Your task to perform on an android device: open app "LinkedIn" Image 0: 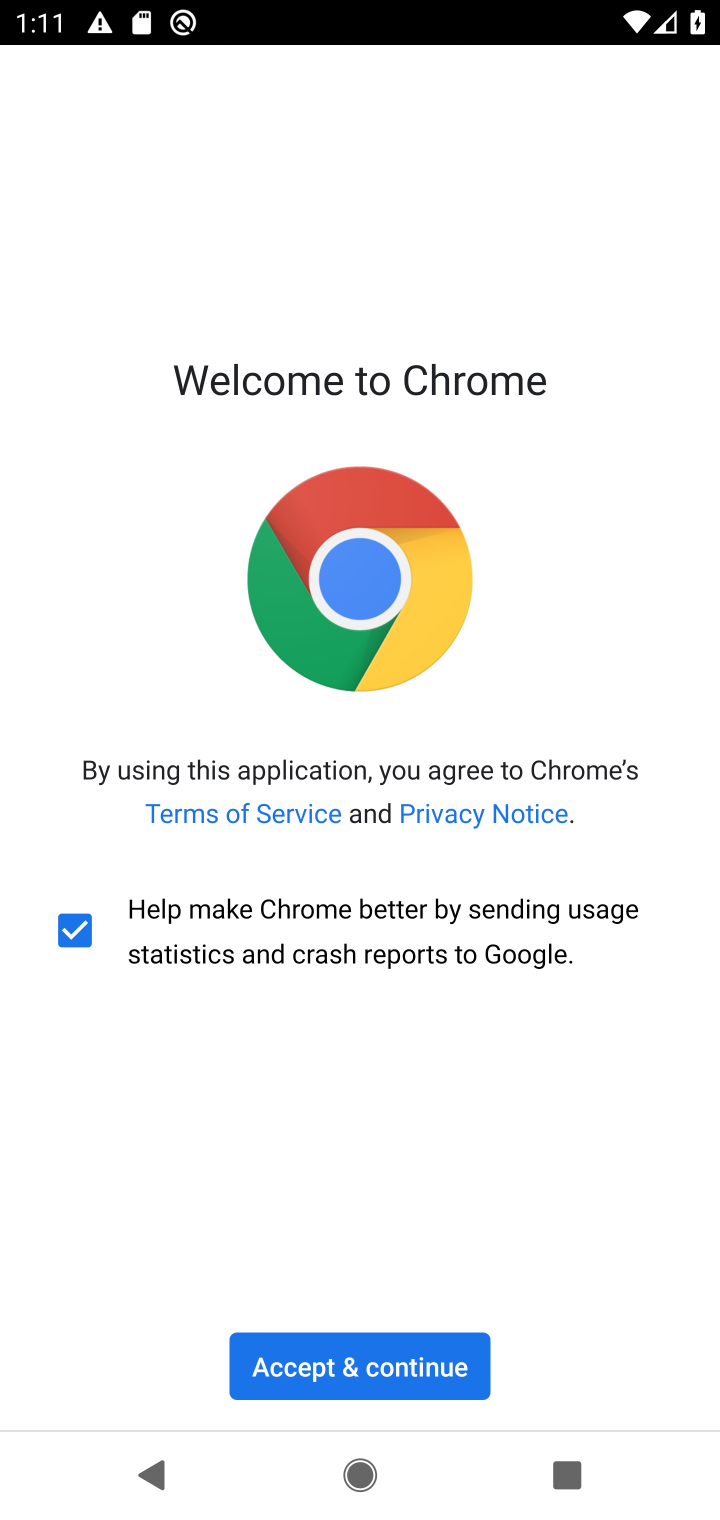
Step 0: press home button
Your task to perform on an android device: open app "LinkedIn" Image 1: 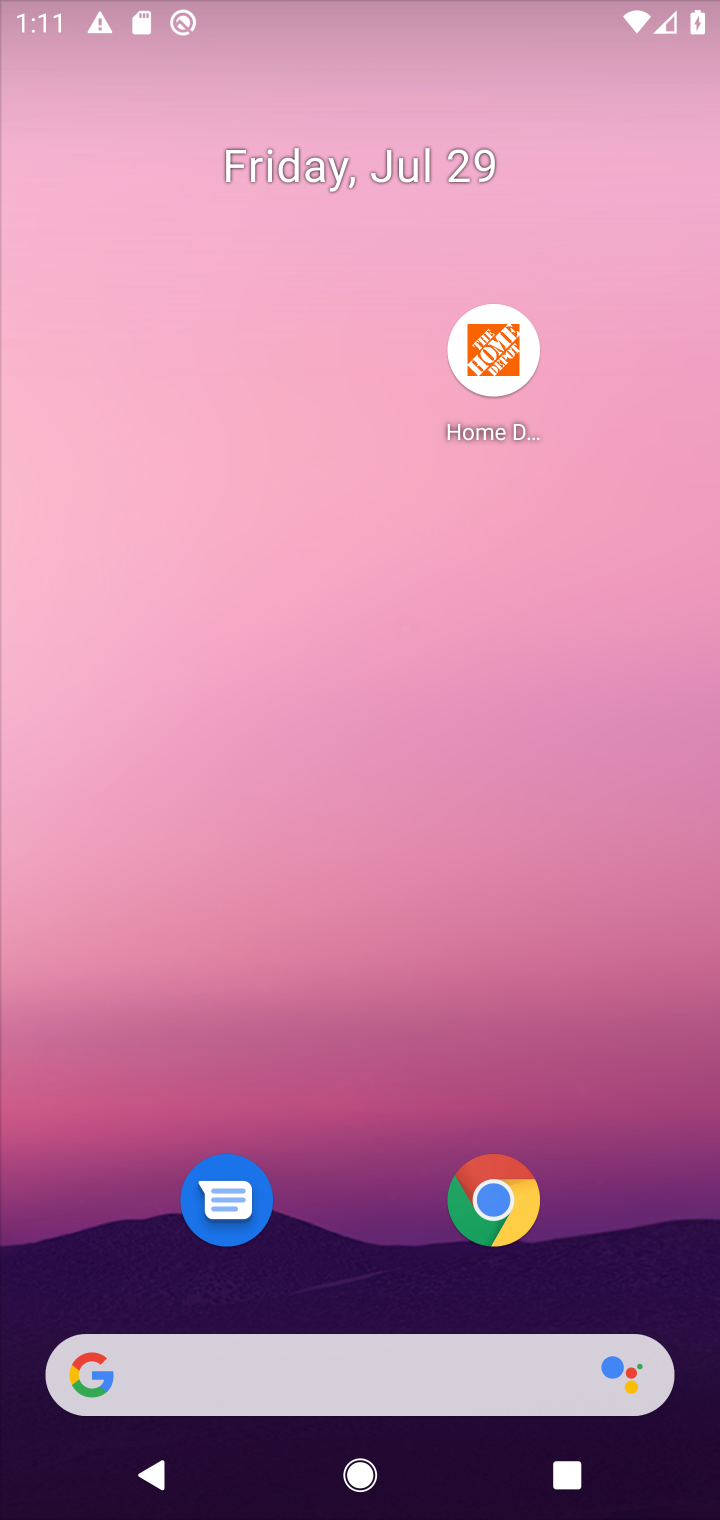
Step 1: drag from (557, 1175) to (583, 334)
Your task to perform on an android device: open app "LinkedIn" Image 2: 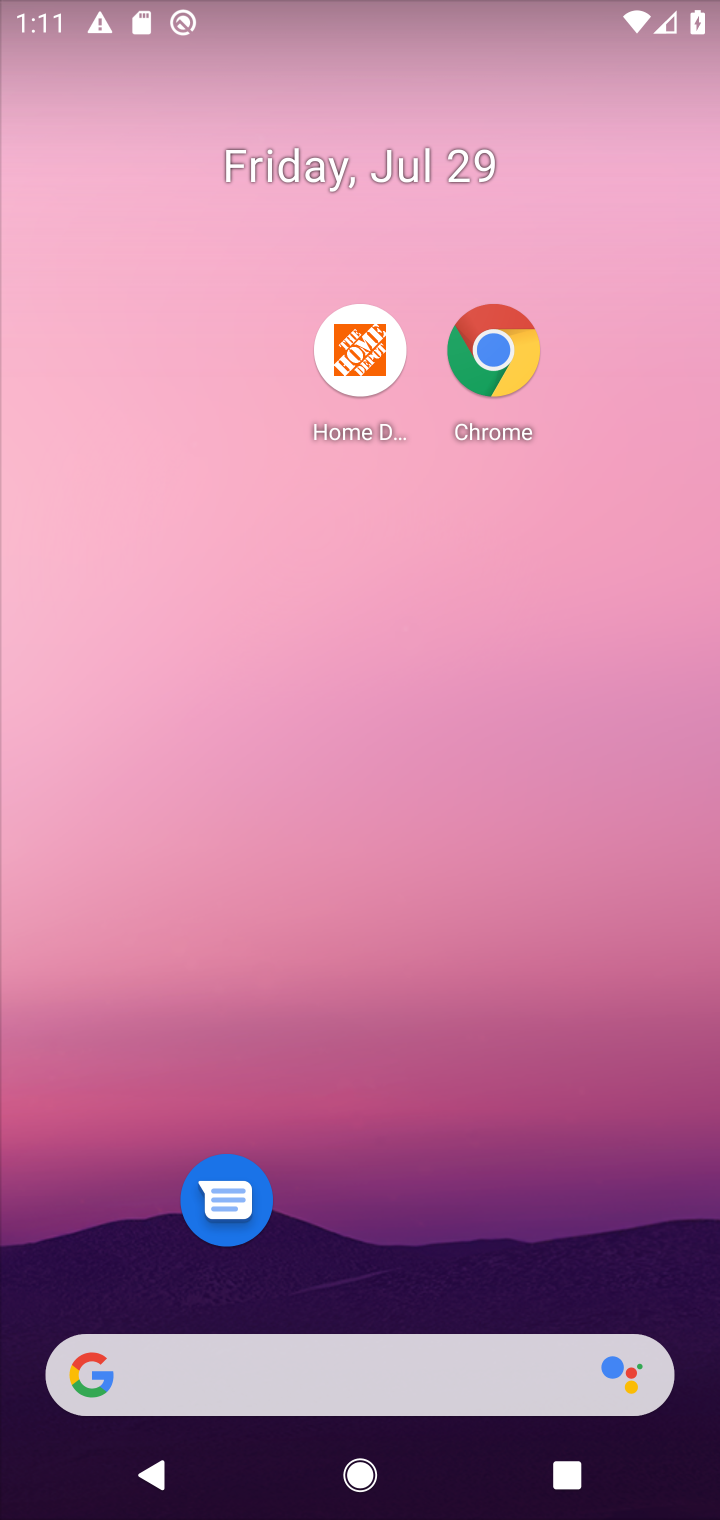
Step 2: drag from (518, 1109) to (597, 59)
Your task to perform on an android device: open app "LinkedIn" Image 3: 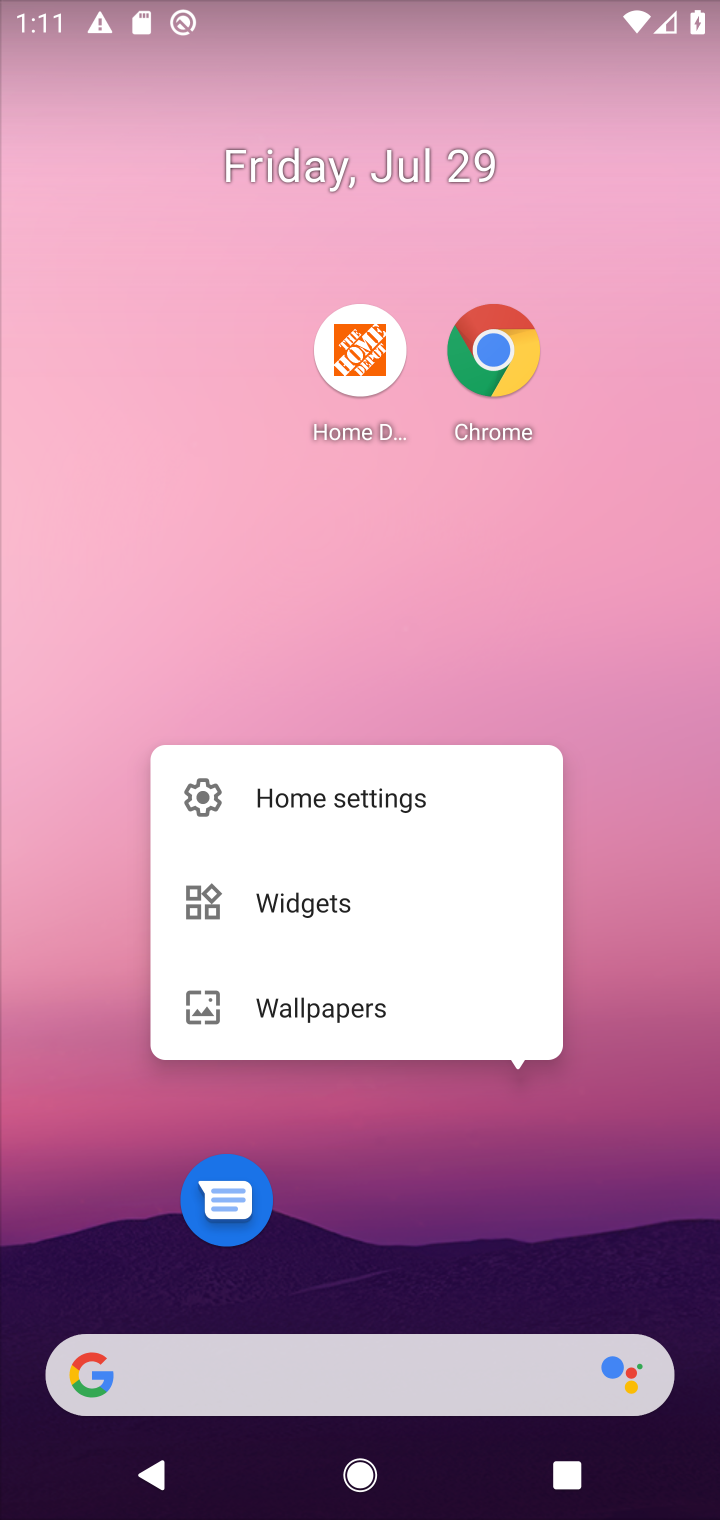
Step 3: click (635, 697)
Your task to perform on an android device: open app "LinkedIn" Image 4: 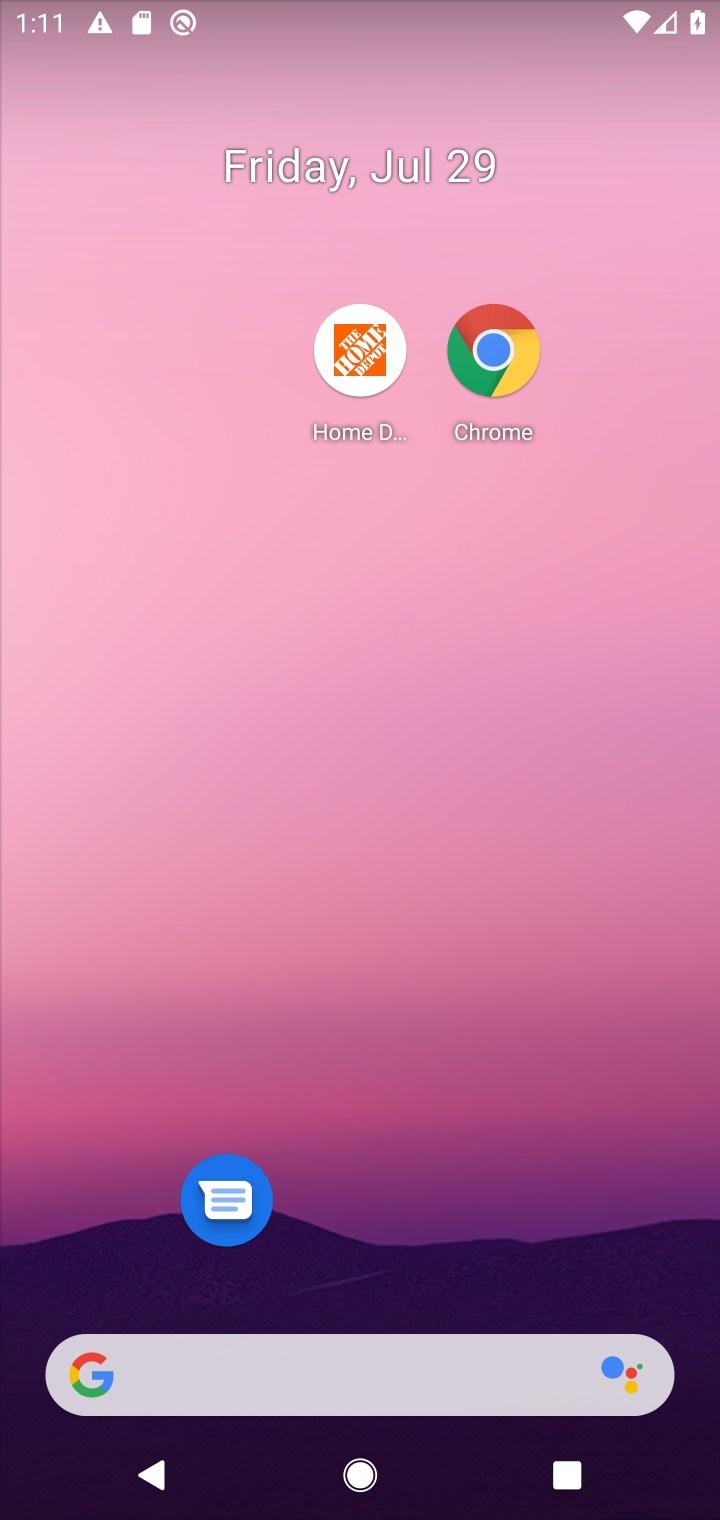
Step 4: drag from (484, 1244) to (447, 87)
Your task to perform on an android device: open app "LinkedIn" Image 5: 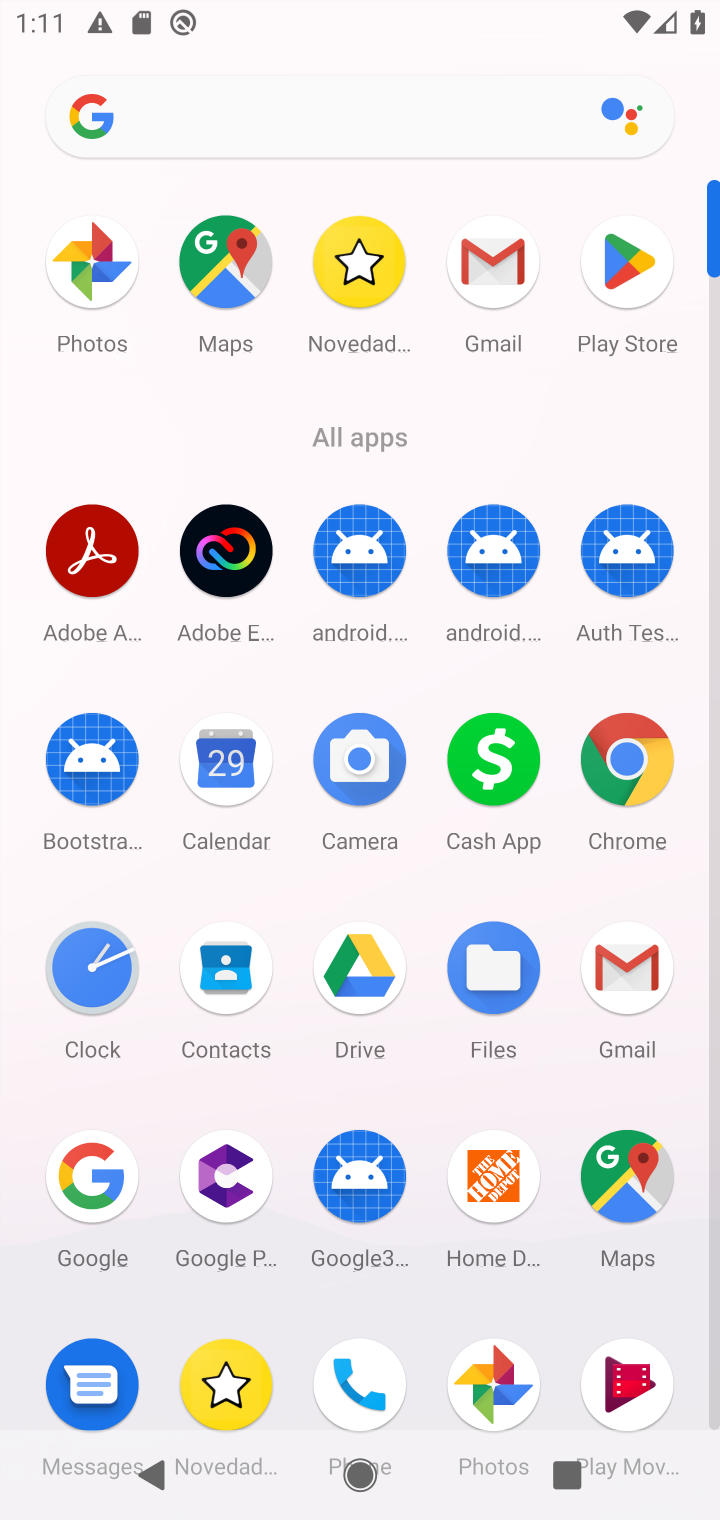
Step 5: click (629, 292)
Your task to perform on an android device: open app "LinkedIn" Image 6: 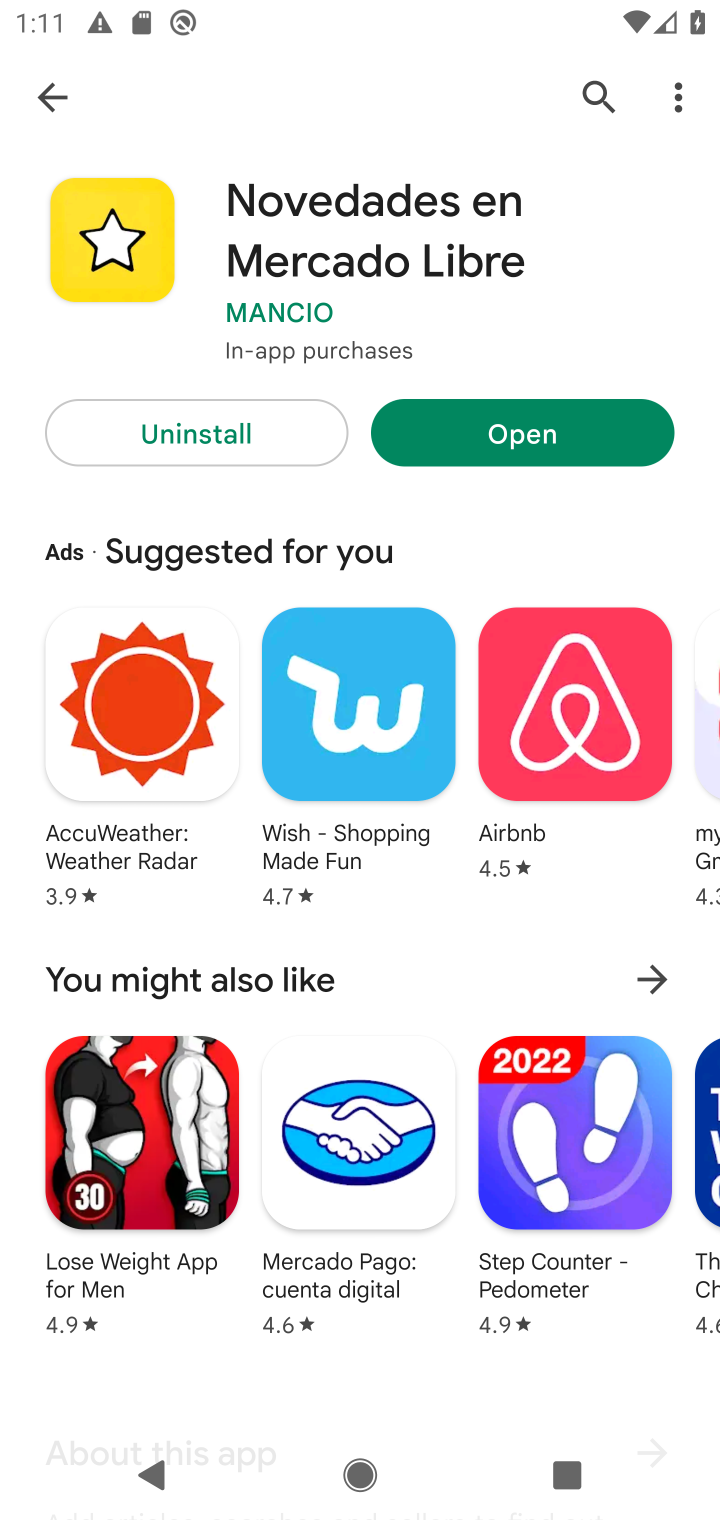
Step 6: click (613, 87)
Your task to perform on an android device: open app "LinkedIn" Image 7: 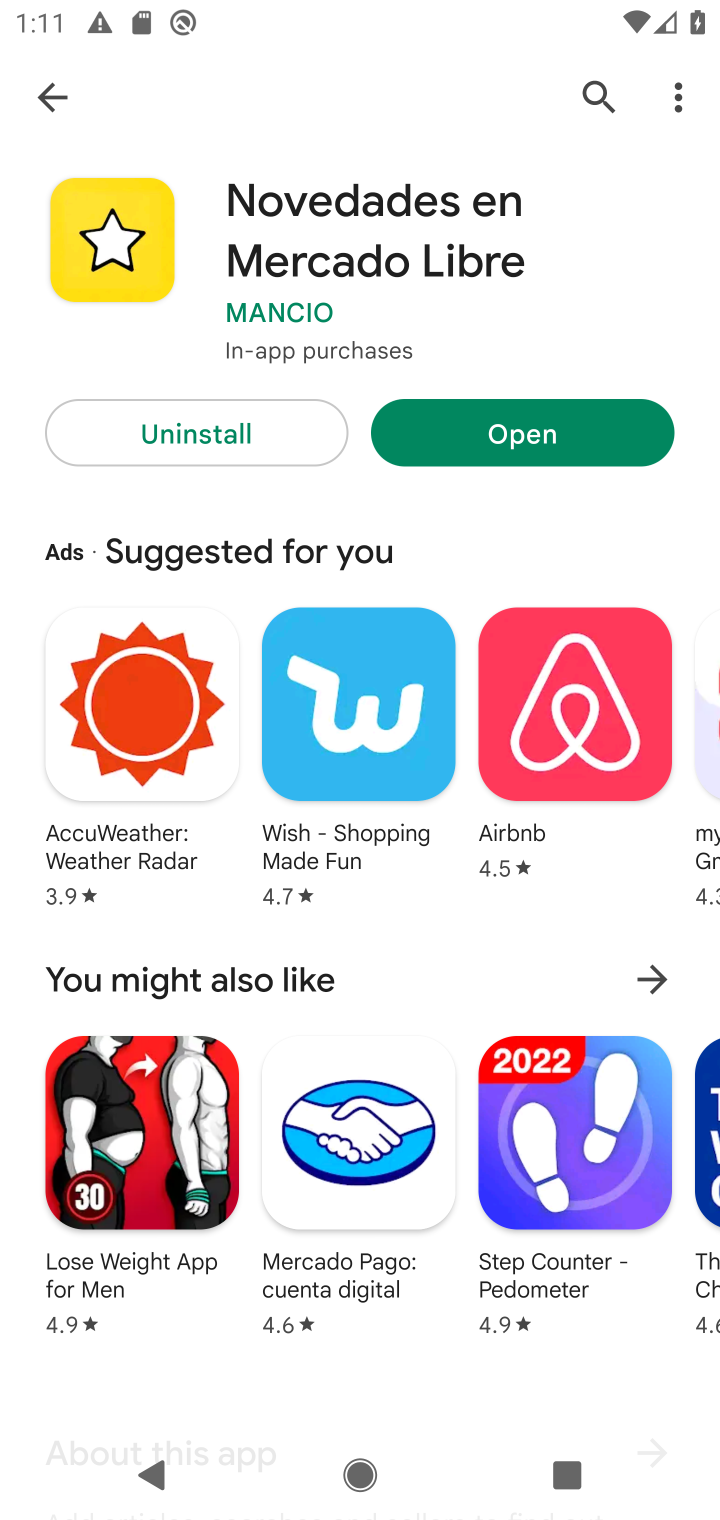
Step 7: click (595, 105)
Your task to perform on an android device: open app "LinkedIn" Image 8: 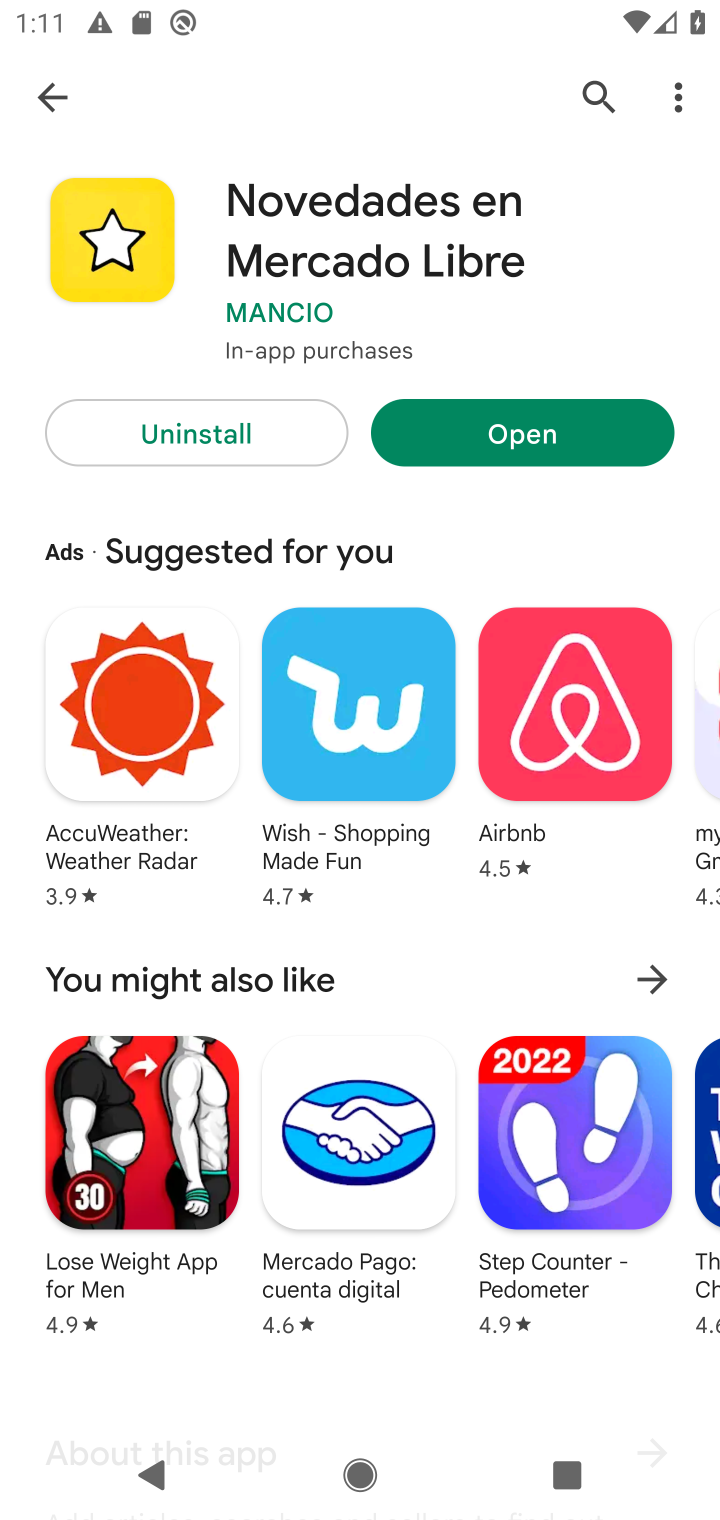
Step 8: click (590, 94)
Your task to perform on an android device: open app "LinkedIn" Image 9: 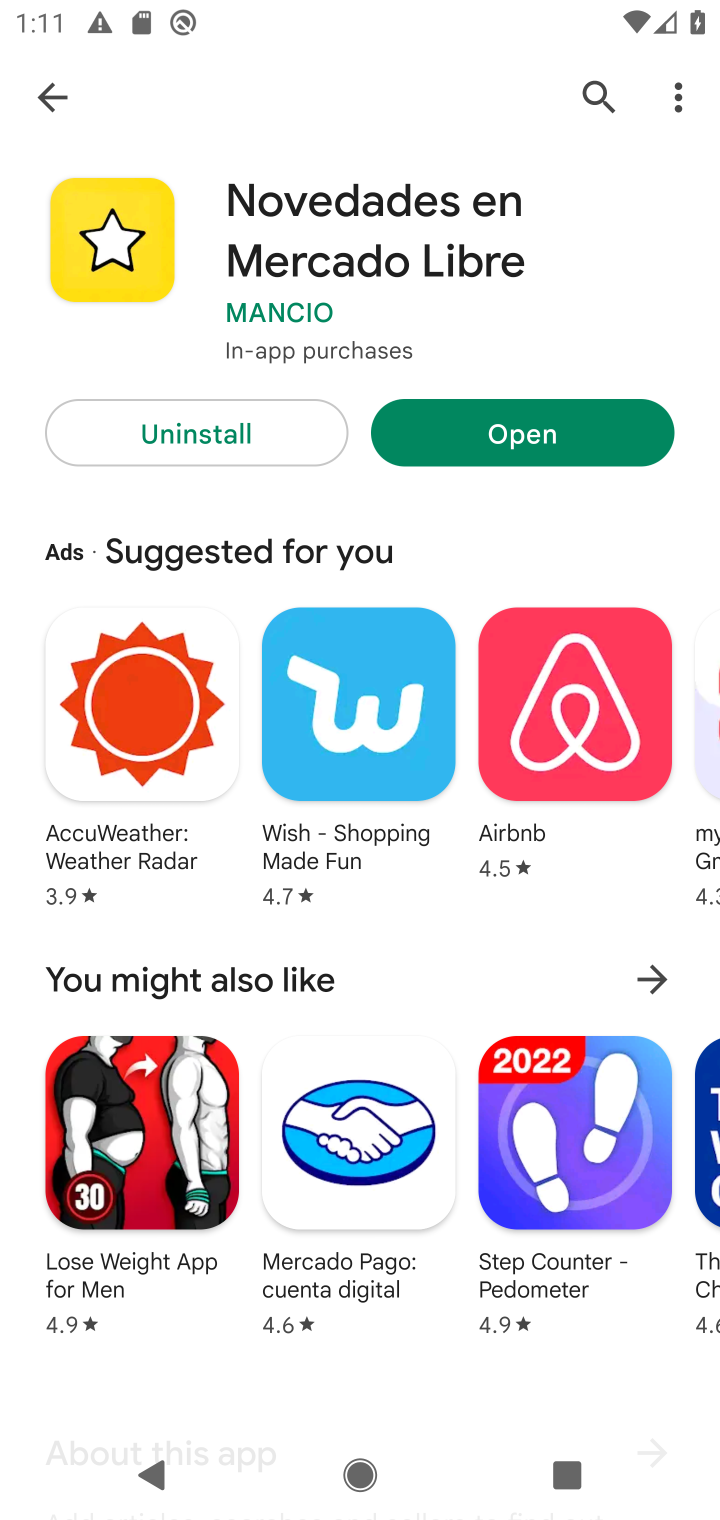
Step 9: click (50, 100)
Your task to perform on an android device: open app "LinkedIn" Image 10: 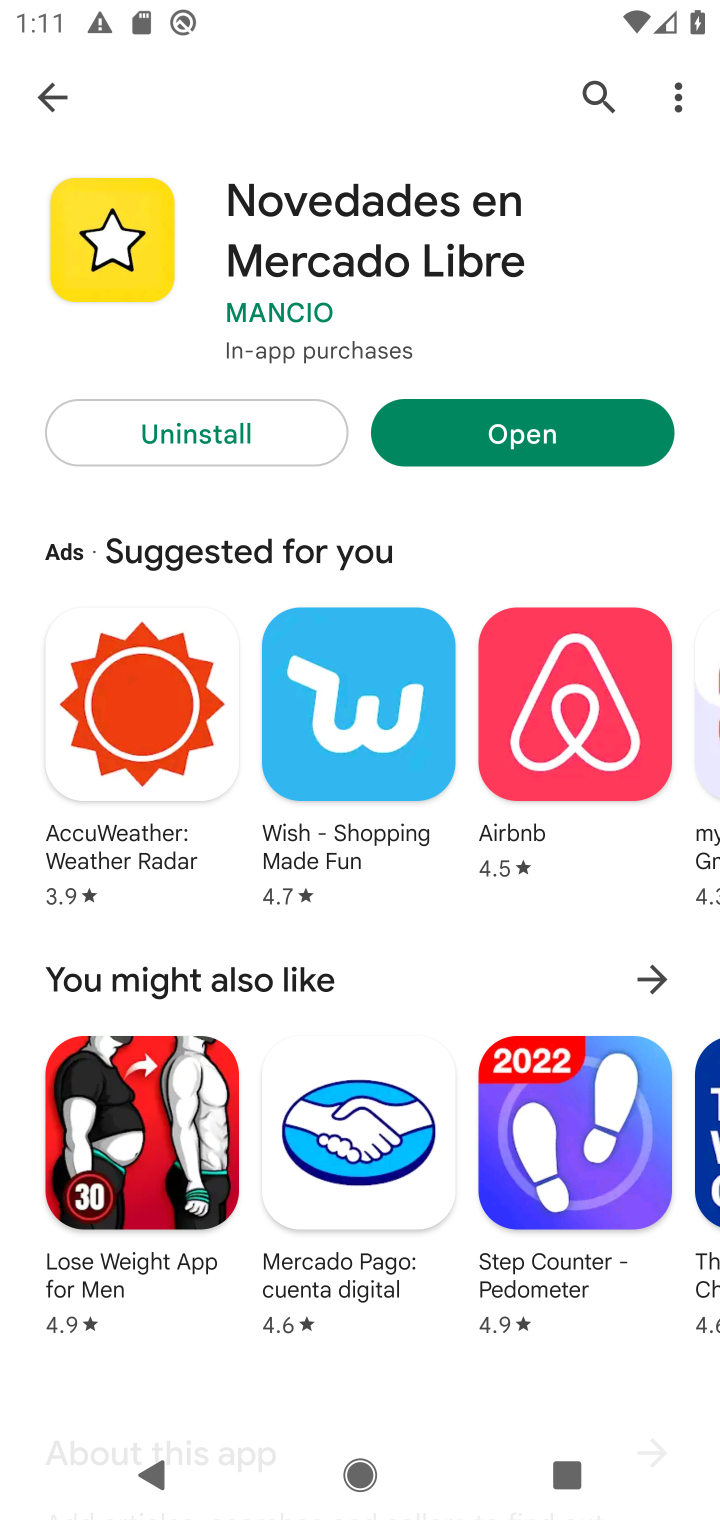
Step 10: click (43, 96)
Your task to perform on an android device: open app "LinkedIn" Image 11: 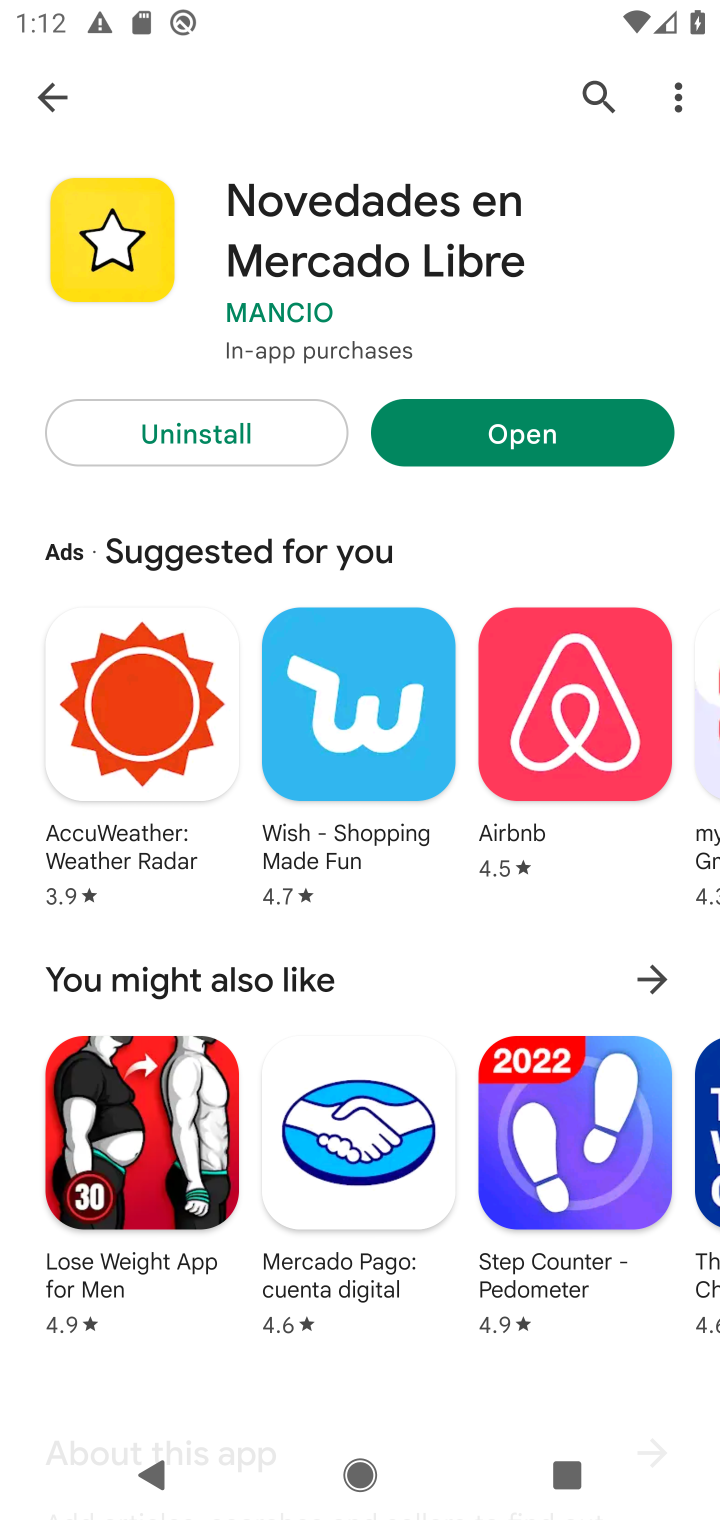
Step 11: click (623, 79)
Your task to perform on an android device: open app "LinkedIn" Image 12: 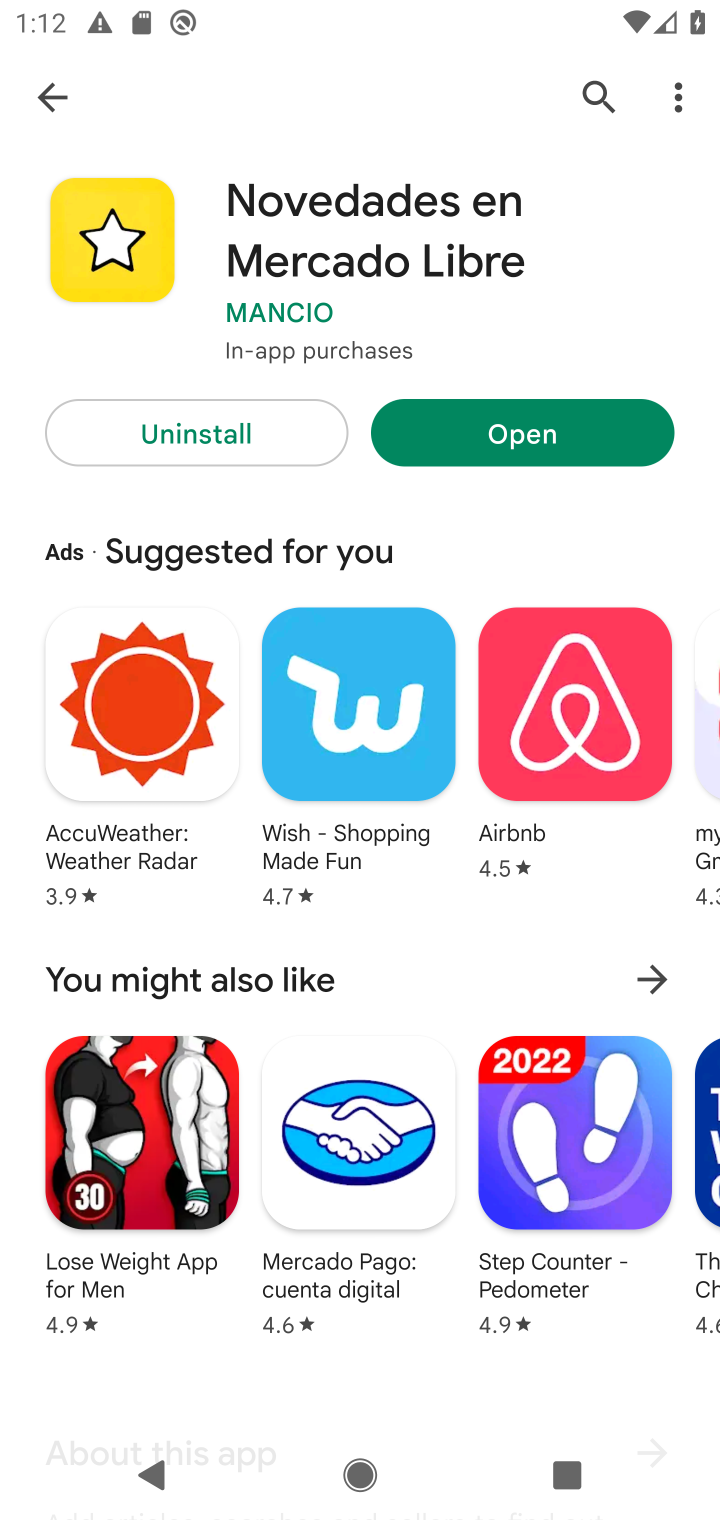
Step 12: click (612, 85)
Your task to perform on an android device: open app "LinkedIn" Image 13: 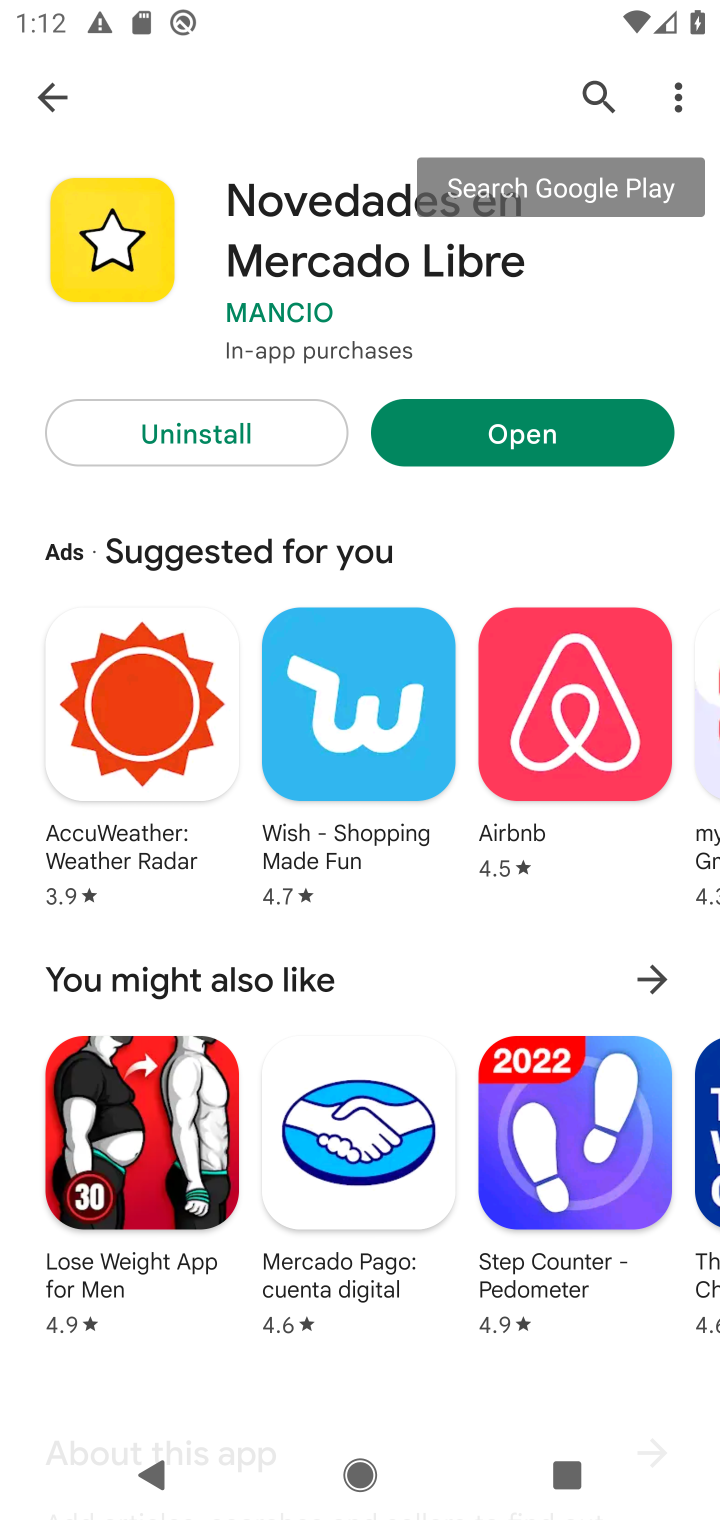
Step 13: task complete